Your task to perform on an android device: turn off notifications settings in the gmail app Image 0: 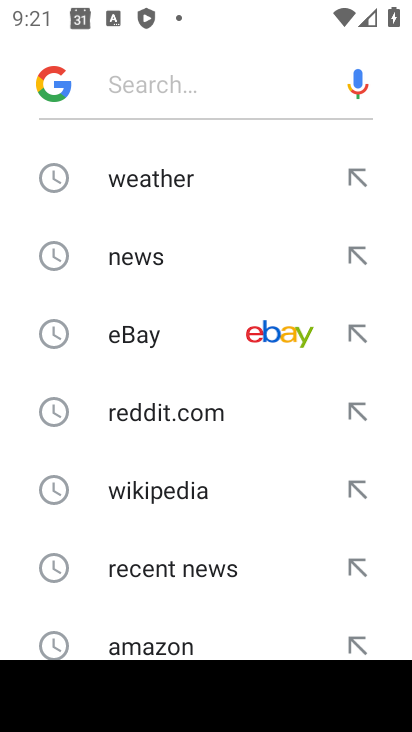
Step 0: press home button
Your task to perform on an android device: turn off notifications settings in the gmail app Image 1: 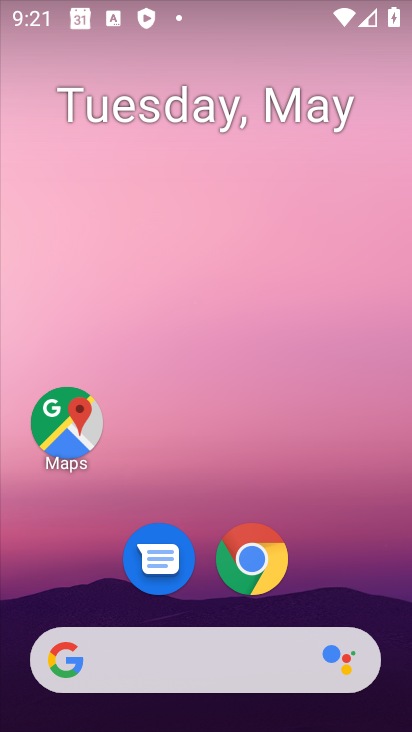
Step 1: drag from (173, 671) to (167, 359)
Your task to perform on an android device: turn off notifications settings in the gmail app Image 2: 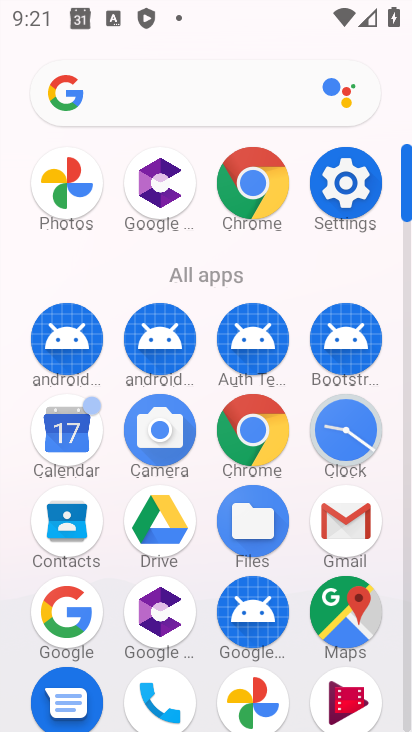
Step 2: click (333, 523)
Your task to perform on an android device: turn off notifications settings in the gmail app Image 3: 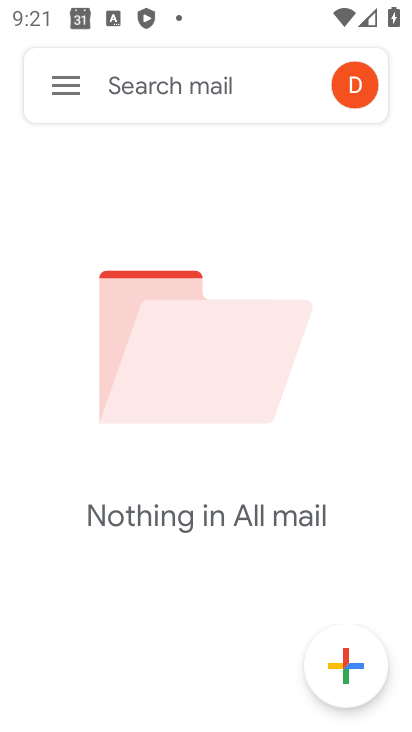
Step 3: click (73, 91)
Your task to perform on an android device: turn off notifications settings in the gmail app Image 4: 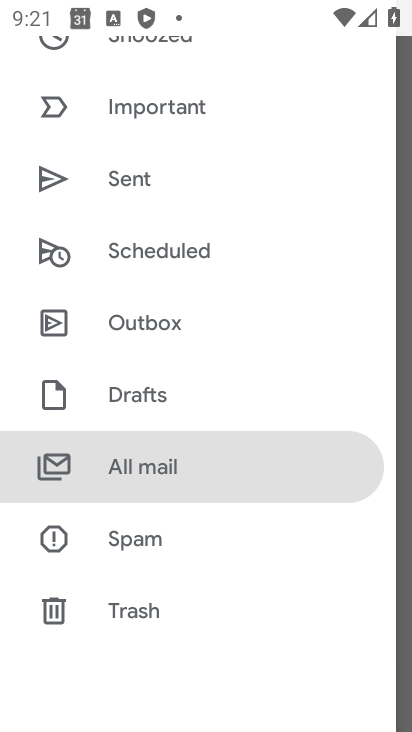
Step 4: drag from (142, 158) to (92, 180)
Your task to perform on an android device: turn off notifications settings in the gmail app Image 5: 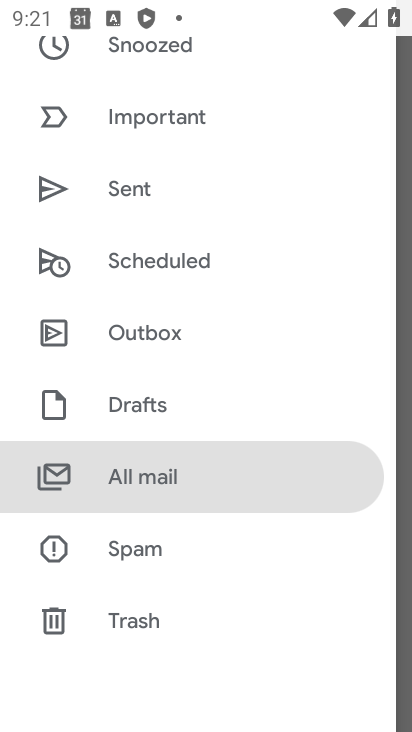
Step 5: drag from (150, 644) to (137, 170)
Your task to perform on an android device: turn off notifications settings in the gmail app Image 6: 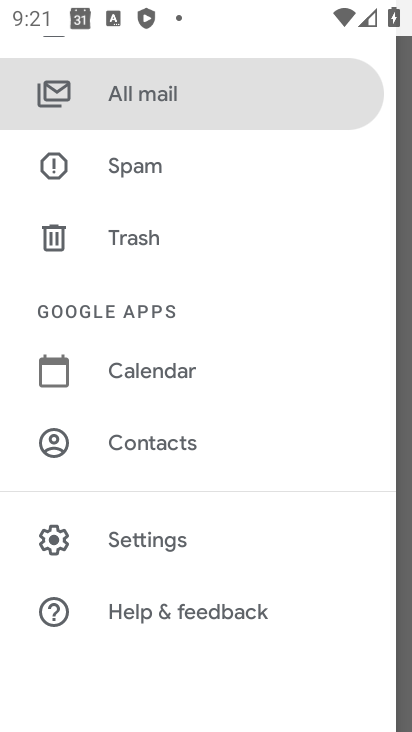
Step 6: click (122, 555)
Your task to perform on an android device: turn off notifications settings in the gmail app Image 7: 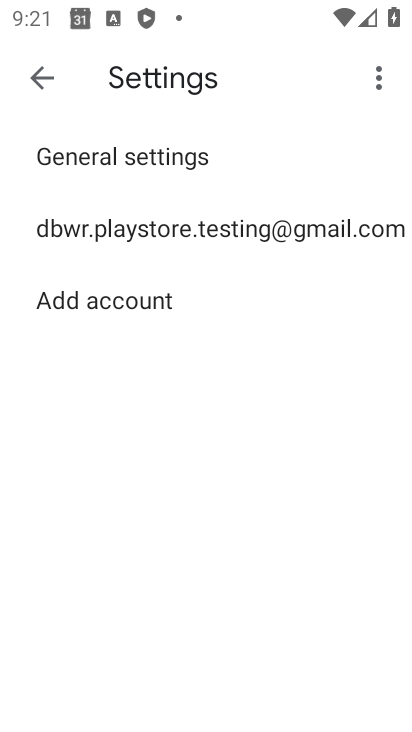
Step 7: click (183, 226)
Your task to perform on an android device: turn off notifications settings in the gmail app Image 8: 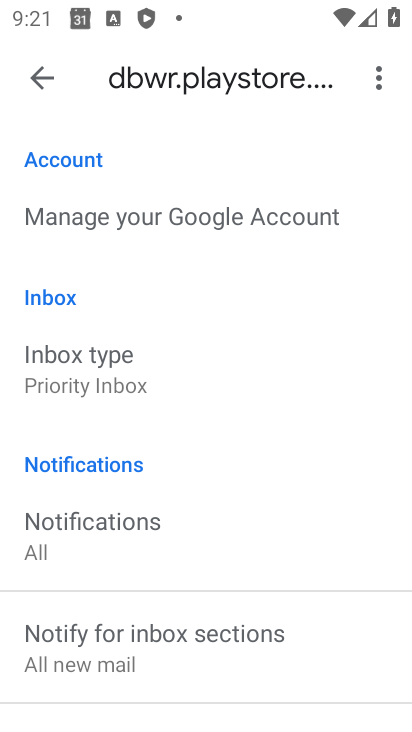
Step 8: drag from (208, 585) to (211, 223)
Your task to perform on an android device: turn off notifications settings in the gmail app Image 9: 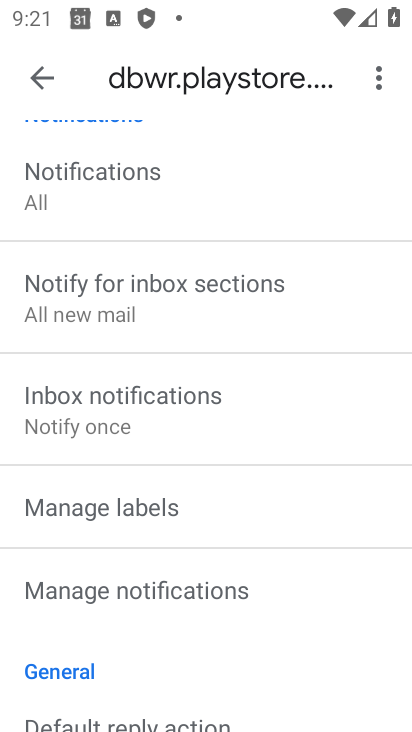
Step 9: click (131, 580)
Your task to perform on an android device: turn off notifications settings in the gmail app Image 10: 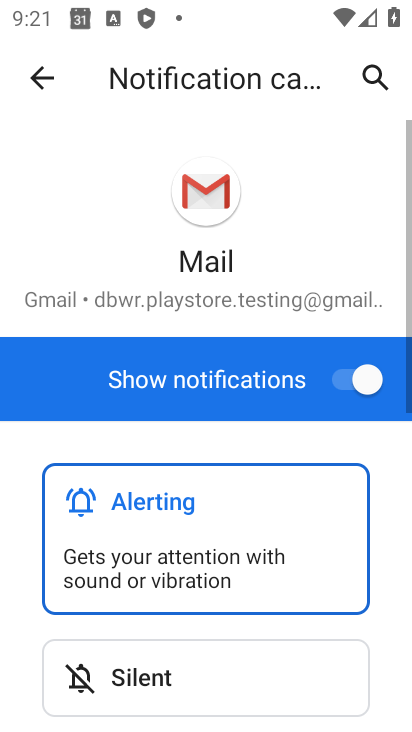
Step 10: click (354, 376)
Your task to perform on an android device: turn off notifications settings in the gmail app Image 11: 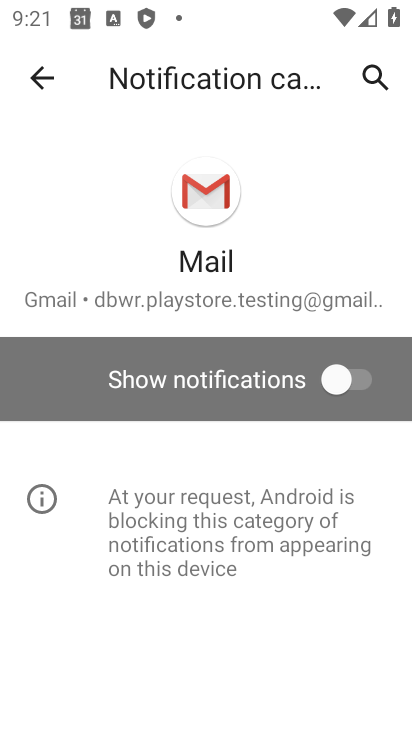
Step 11: task complete